Your task to perform on an android device: What's the weather today? Image 0: 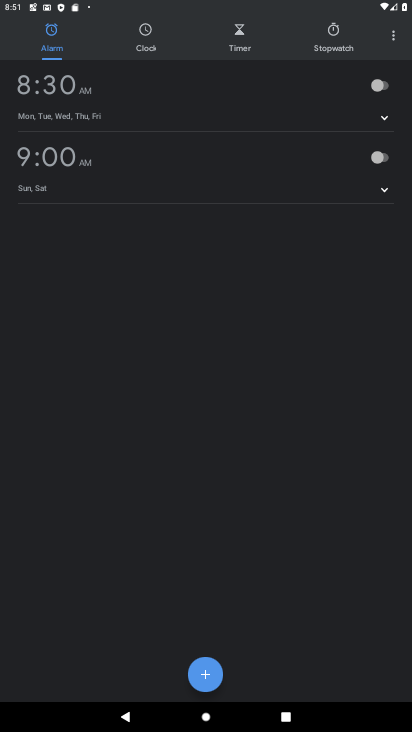
Step 0: press home button
Your task to perform on an android device: What's the weather today? Image 1: 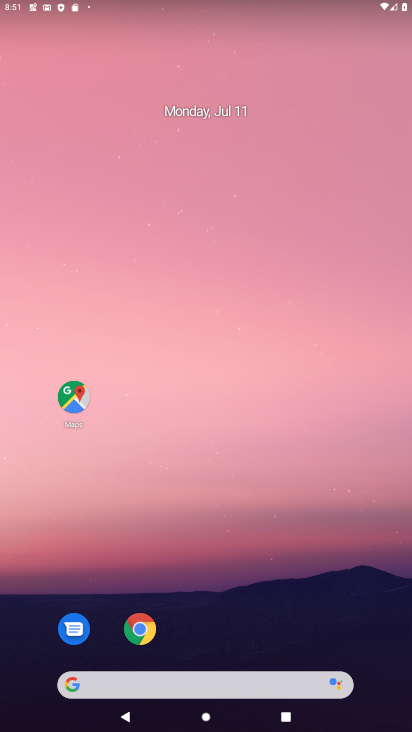
Step 1: click (169, 694)
Your task to perform on an android device: What's the weather today? Image 2: 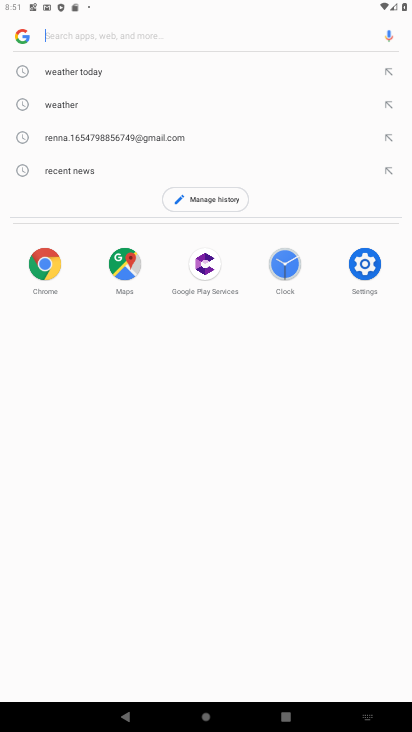
Step 2: click (92, 76)
Your task to perform on an android device: What's the weather today? Image 3: 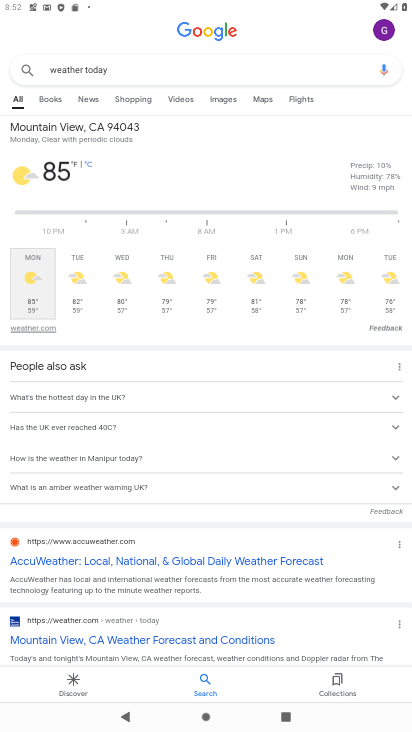
Step 3: task complete